Your task to perform on an android device: turn on the 12-hour format for clock Image 0: 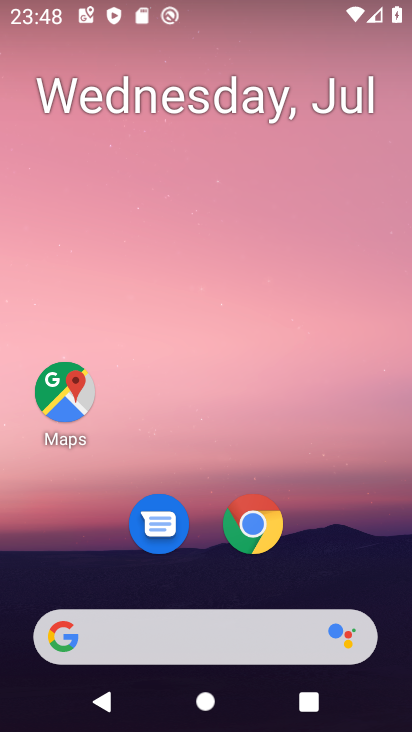
Step 0: drag from (208, 622) to (345, 67)
Your task to perform on an android device: turn on the 12-hour format for clock Image 1: 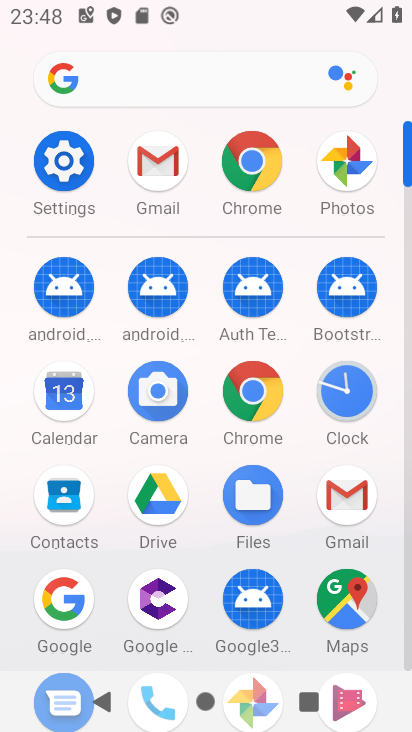
Step 1: click (340, 391)
Your task to perform on an android device: turn on the 12-hour format for clock Image 2: 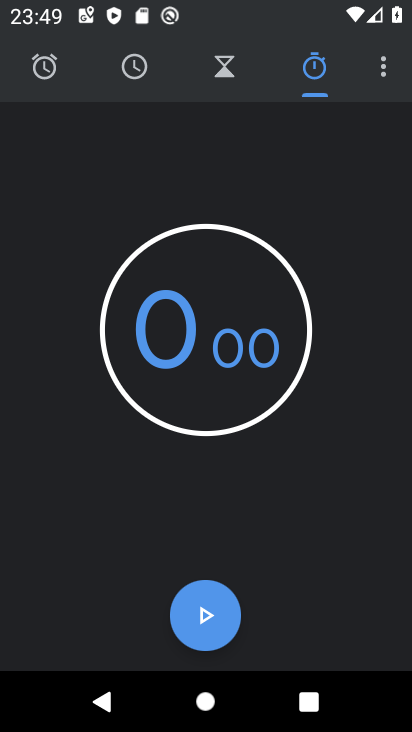
Step 2: click (385, 69)
Your task to perform on an android device: turn on the 12-hour format for clock Image 3: 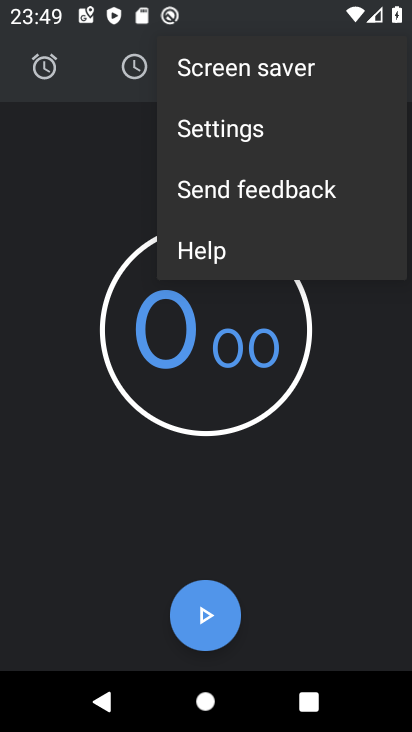
Step 3: click (251, 135)
Your task to perform on an android device: turn on the 12-hour format for clock Image 4: 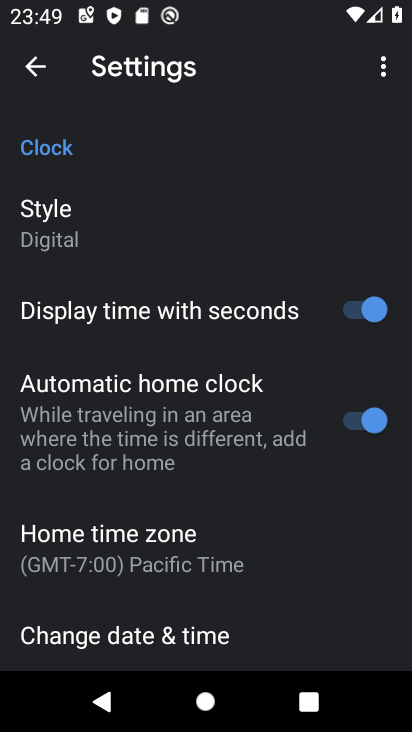
Step 4: drag from (206, 550) to (320, 112)
Your task to perform on an android device: turn on the 12-hour format for clock Image 5: 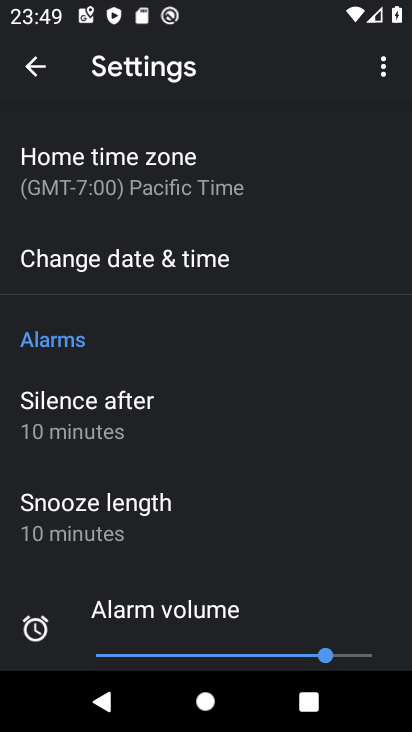
Step 5: click (130, 264)
Your task to perform on an android device: turn on the 12-hour format for clock Image 6: 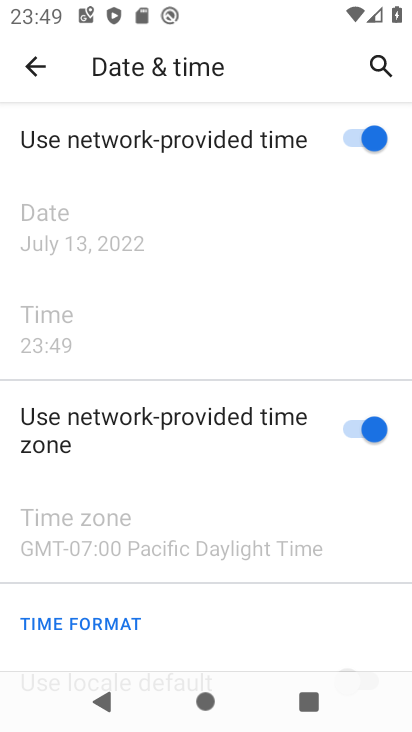
Step 6: drag from (239, 592) to (296, 187)
Your task to perform on an android device: turn on the 12-hour format for clock Image 7: 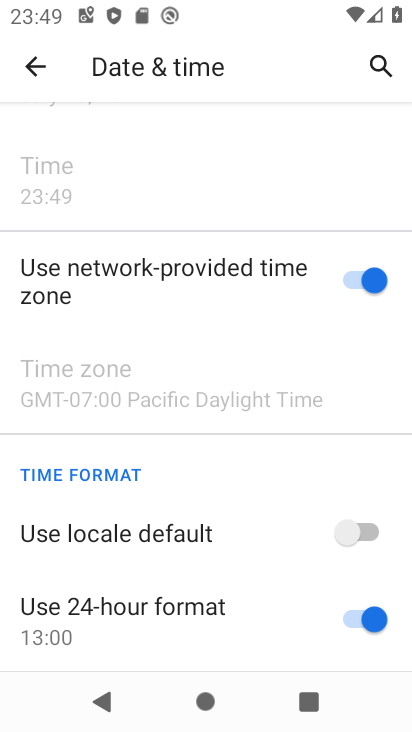
Step 7: click (370, 529)
Your task to perform on an android device: turn on the 12-hour format for clock Image 8: 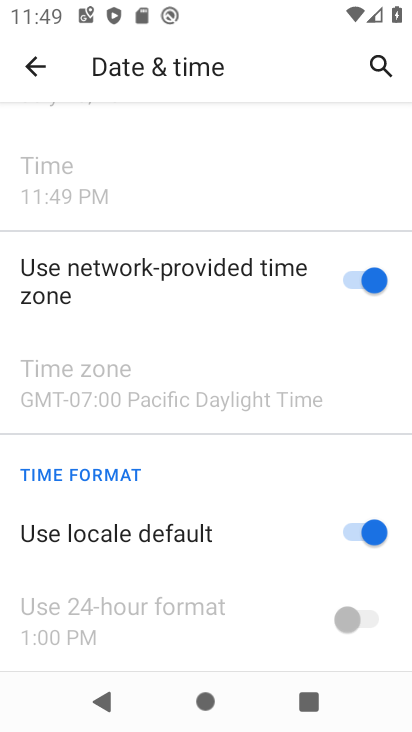
Step 8: task complete